Your task to perform on an android device: Open Google Image 0: 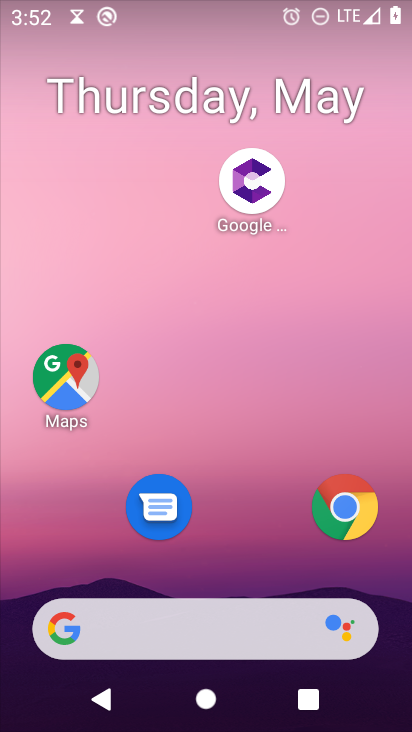
Step 0: press home button
Your task to perform on an android device: Open Google Image 1: 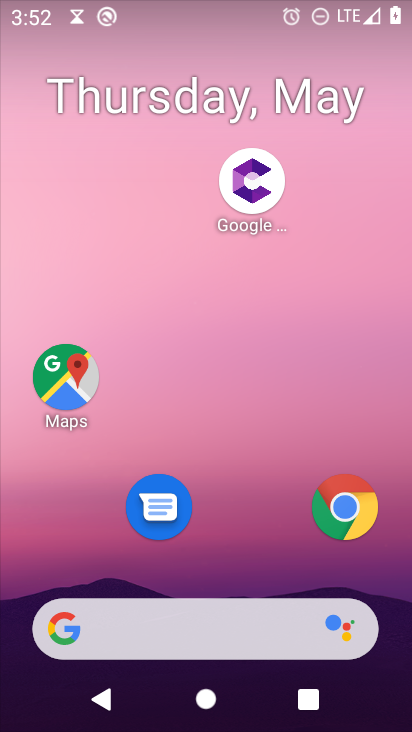
Step 1: click (59, 628)
Your task to perform on an android device: Open Google Image 2: 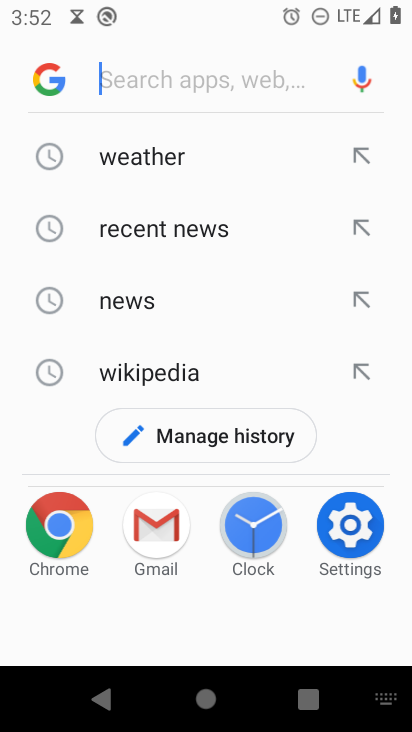
Step 2: task complete